Your task to perform on an android device: toggle location history Image 0: 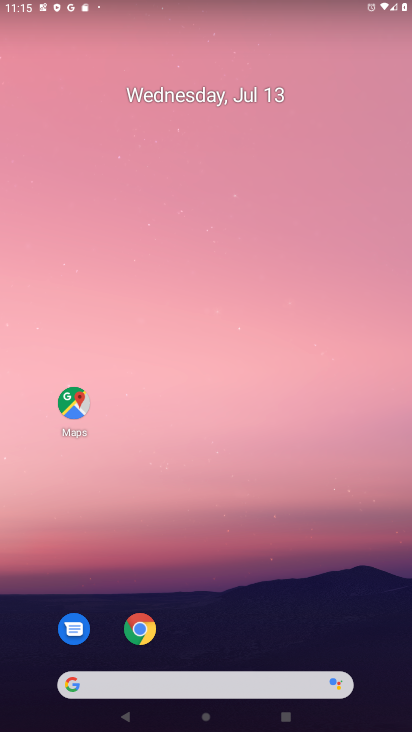
Step 0: drag from (356, 610) to (288, 151)
Your task to perform on an android device: toggle location history Image 1: 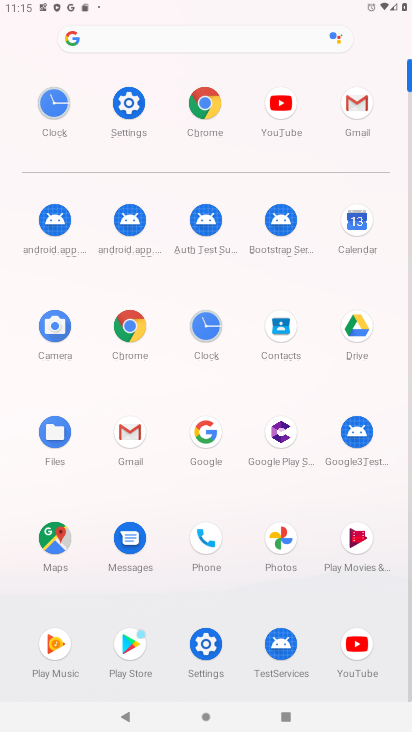
Step 1: click (186, 659)
Your task to perform on an android device: toggle location history Image 2: 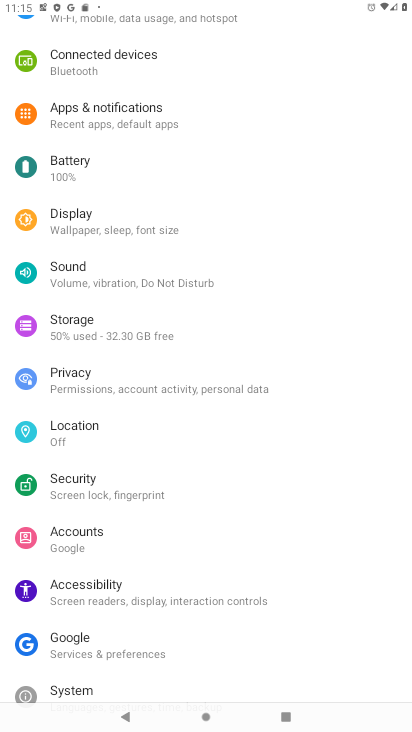
Step 2: click (175, 424)
Your task to perform on an android device: toggle location history Image 3: 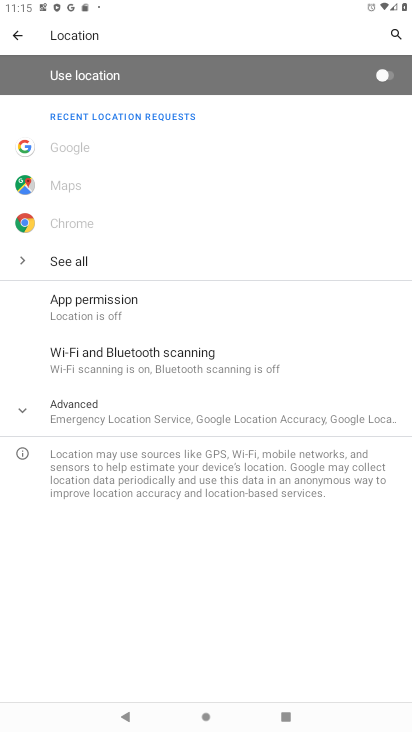
Step 3: click (124, 398)
Your task to perform on an android device: toggle location history Image 4: 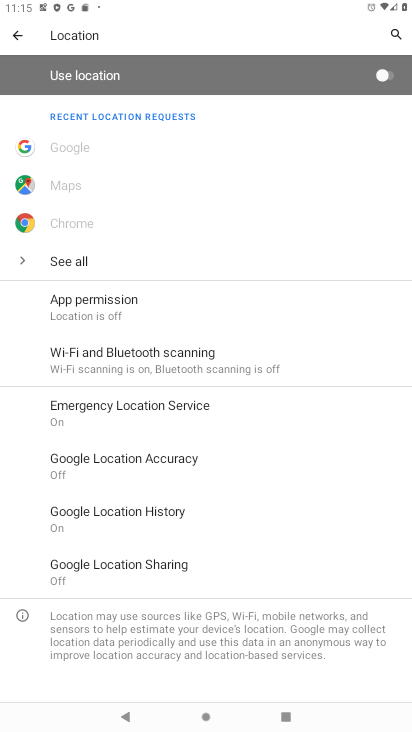
Step 4: click (138, 508)
Your task to perform on an android device: toggle location history Image 5: 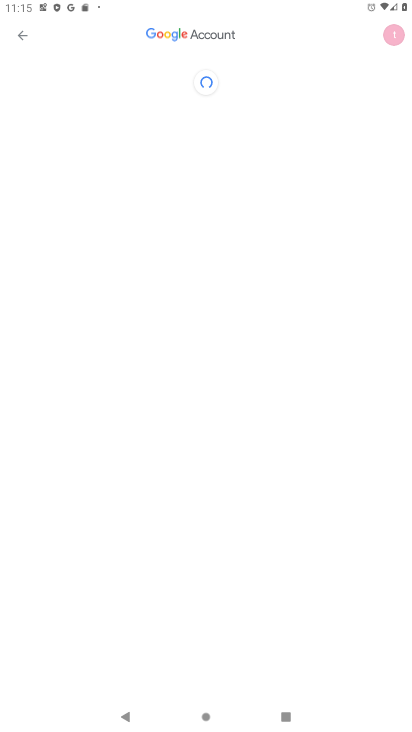
Step 5: task complete